Your task to perform on an android device: Open location settings Image 0: 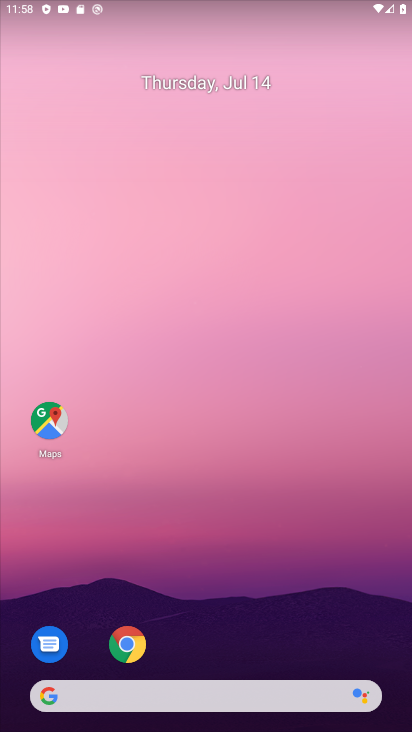
Step 0: drag from (373, 660) to (8, 209)
Your task to perform on an android device: Open location settings Image 1: 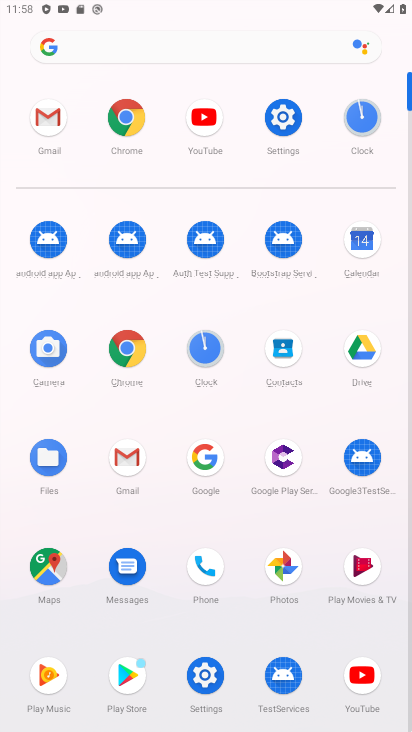
Step 1: click (206, 694)
Your task to perform on an android device: Open location settings Image 2: 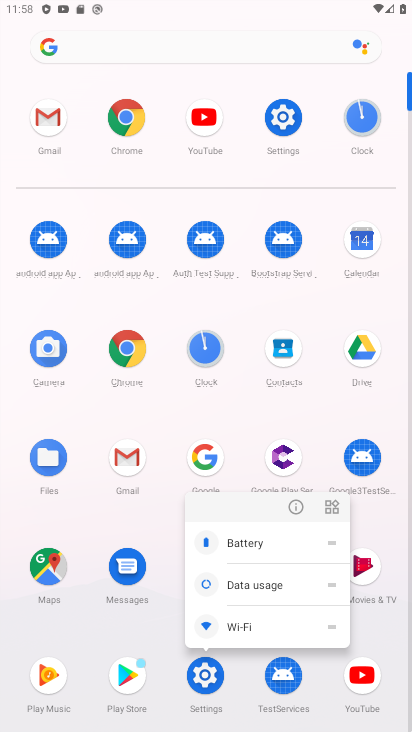
Step 2: click (205, 694)
Your task to perform on an android device: Open location settings Image 3: 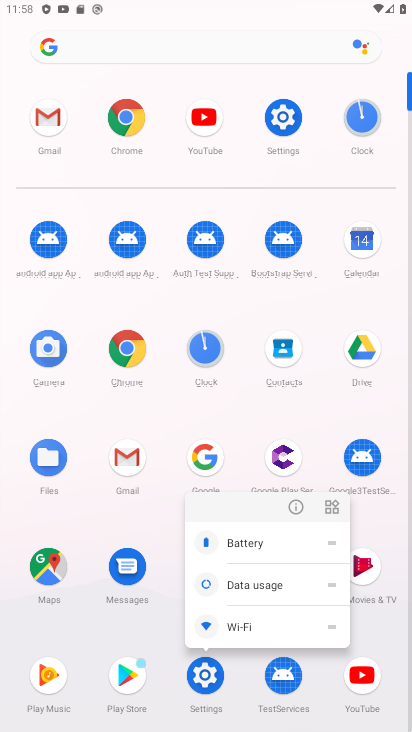
Step 3: click (205, 691)
Your task to perform on an android device: Open location settings Image 4: 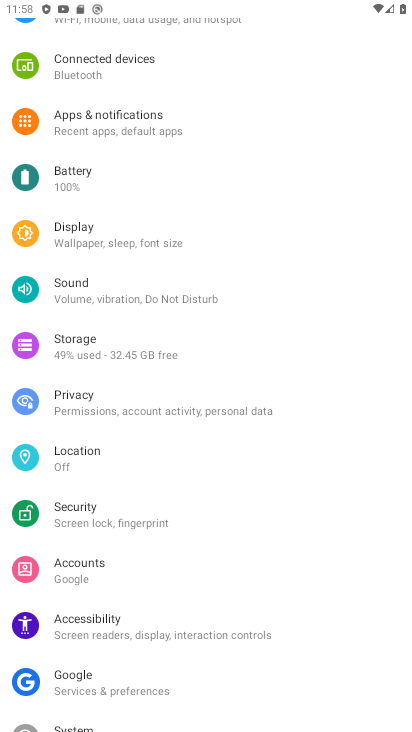
Step 4: click (109, 441)
Your task to perform on an android device: Open location settings Image 5: 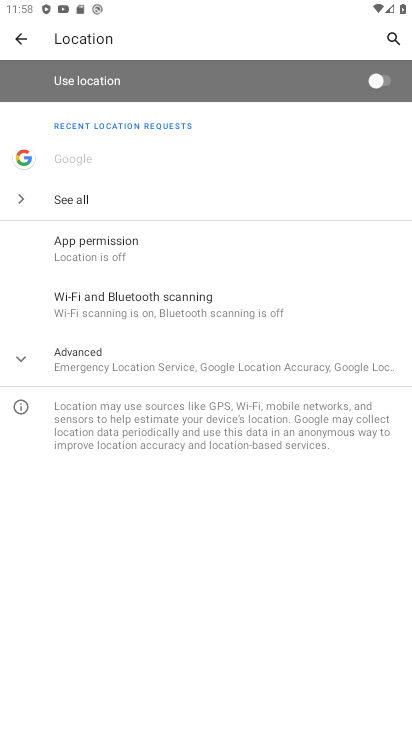
Step 5: task complete